Your task to perform on an android device: Open wifi settings Image 0: 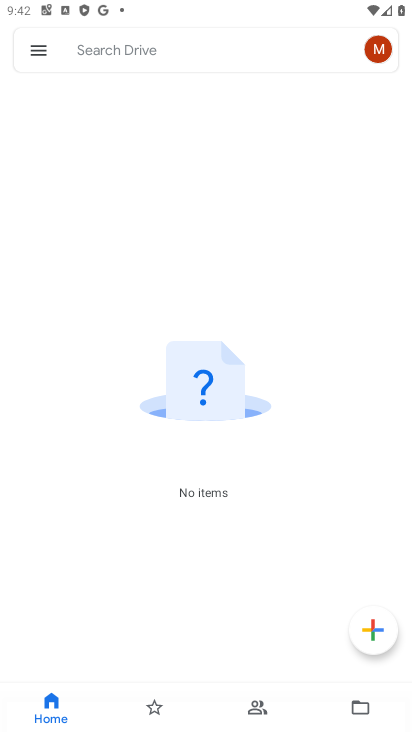
Step 0: press home button
Your task to perform on an android device: Open wifi settings Image 1: 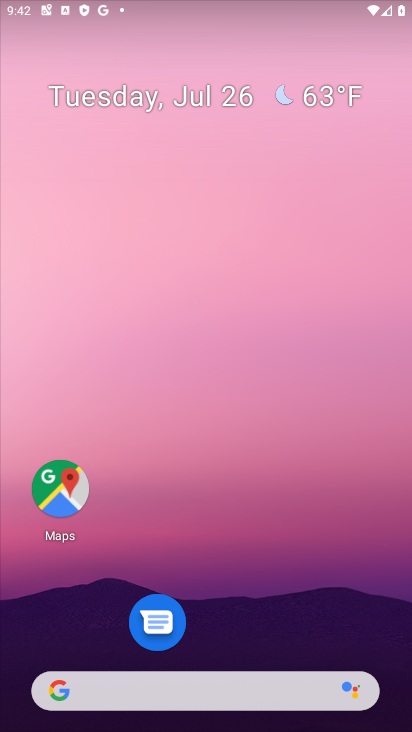
Step 1: drag from (309, 562) to (383, 11)
Your task to perform on an android device: Open wifi settings Image 2: 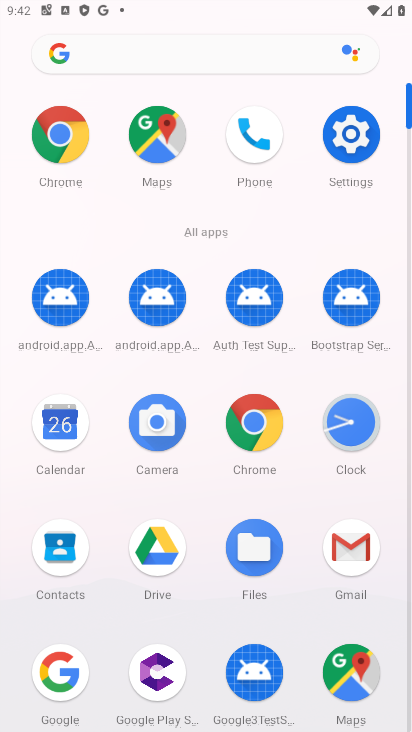
Step 2: click (351, 120)
Your task to perform on an android device: Open wifi settings Image 3: 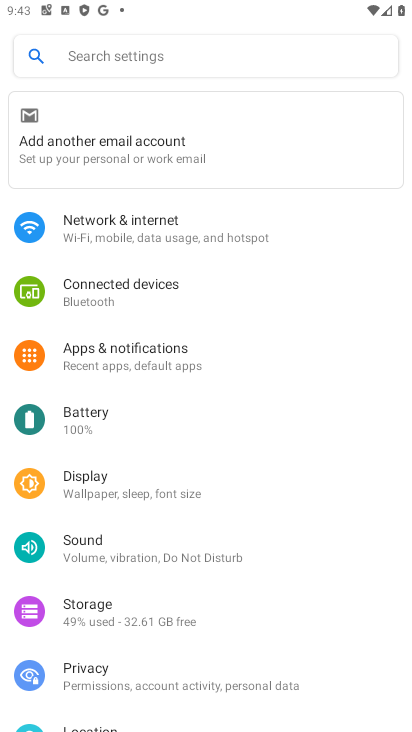
Step 3: task complete